Your task to perform on an android device: Open Yahoo.com Image 0: 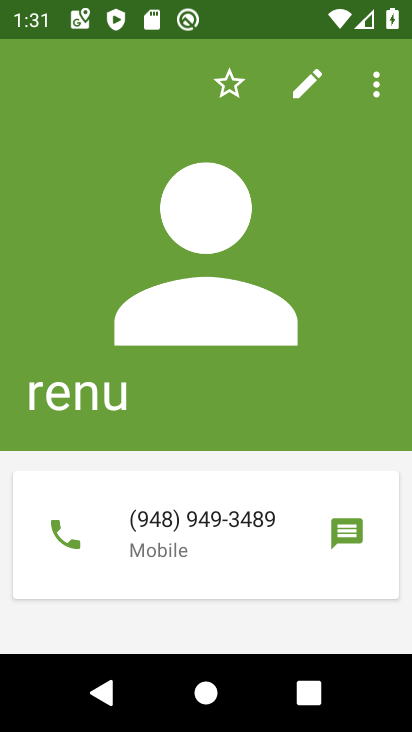
Step 0: press home button
Your task to perform on an android device: Open Yahoo.com Image 1: 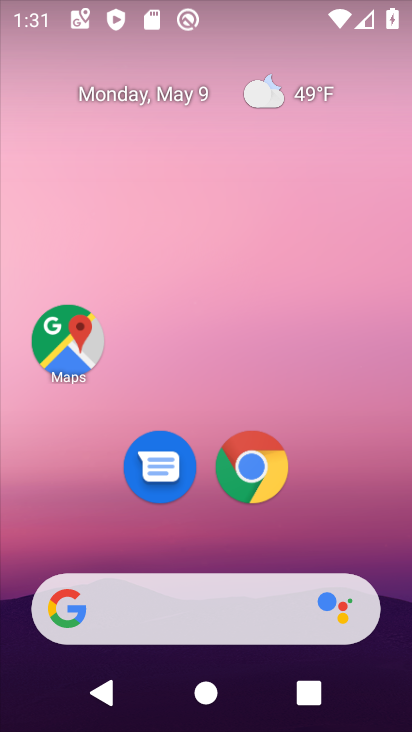
Step 1: drag from (315, 482) to (335, 187)
Your task to perform on an android device: Open Yahoo.com Image 2: 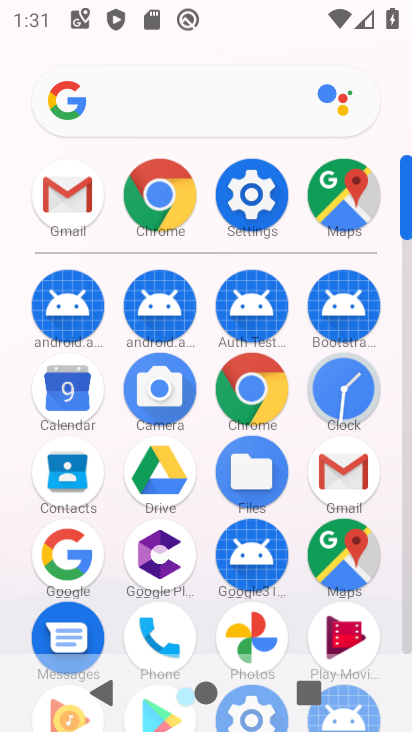
Step 2: click (169, 215)
Your task to perform on an android device: Open Yahoo.com Image 3: 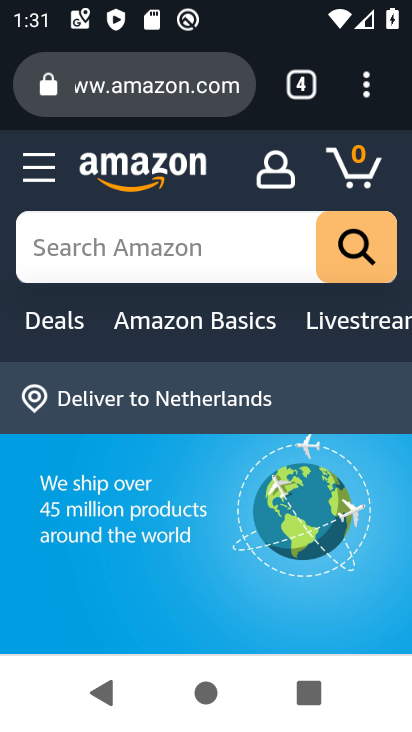
Step 3: click (178, 109)
Your task to perform on an android device: Open Yahoo.com Image 4: 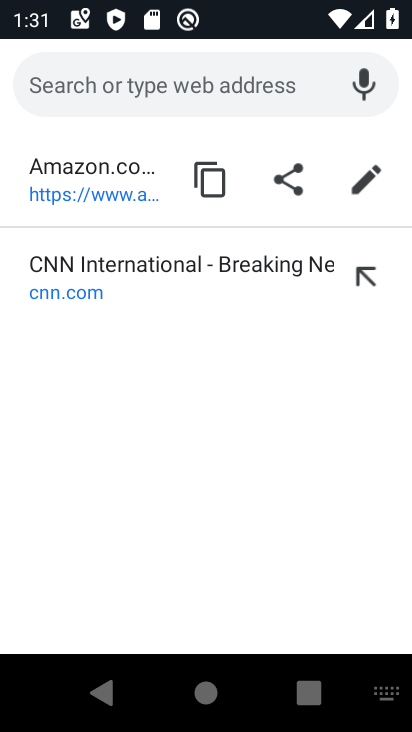
Step 4: type "yahoo.com"
Your task to perform on an android device: Open Yahoo.com Image 5: 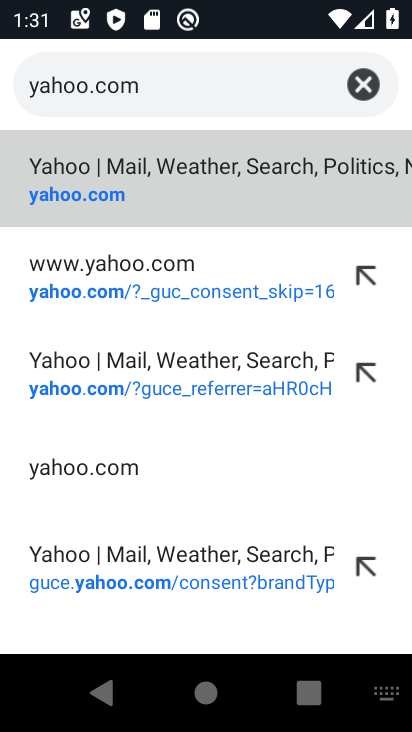
Step 5: click (125, 187)
Your task to perform on an android device: Open Yahoo.com Image 6: 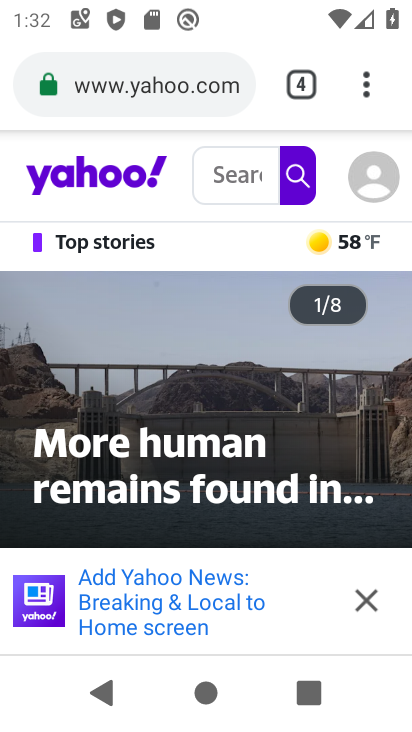
Step 6: task complete